Your task to perform on an android device: turn off smart reply in the gmail app Image 0: 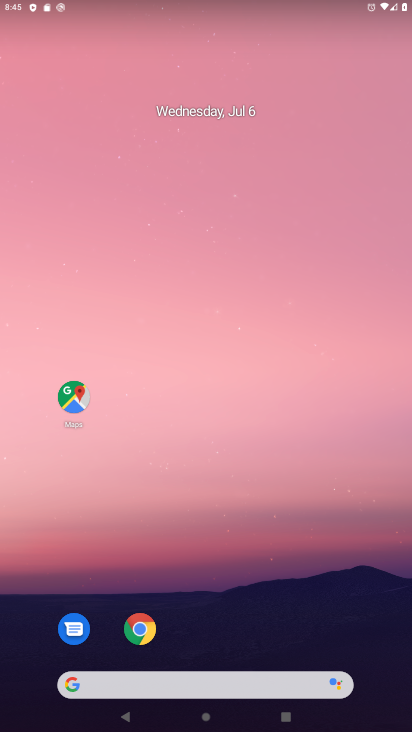
Step 0: drag from (9, 541) to (261, 88)
Your task to perform on an android device: turn off smart reply in the gmail app Image 1: 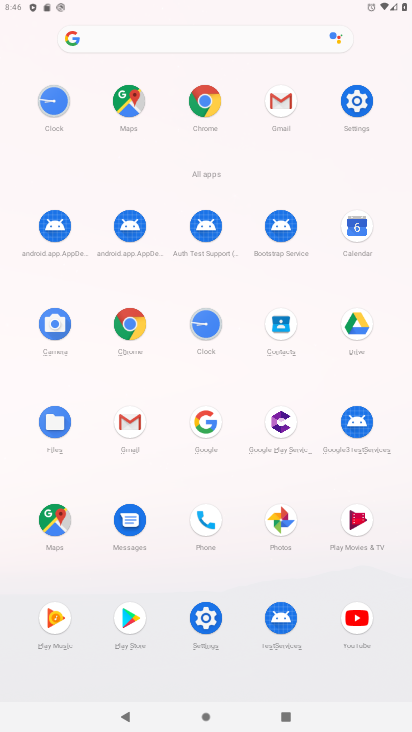
Step 1: task complete